Your task to perform on an android device: manage bookmarks in the chrome app Image 0: 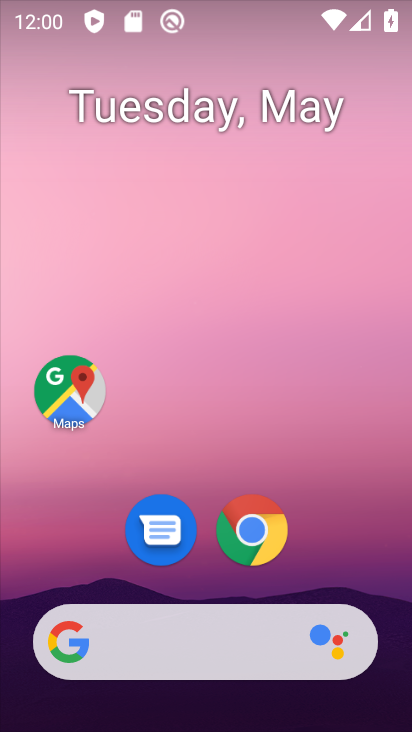
Step 0: drag from (346, 501) to (338, 25)
Your task to perform on an android device: manage bookmarks in the chrome app Image 1: 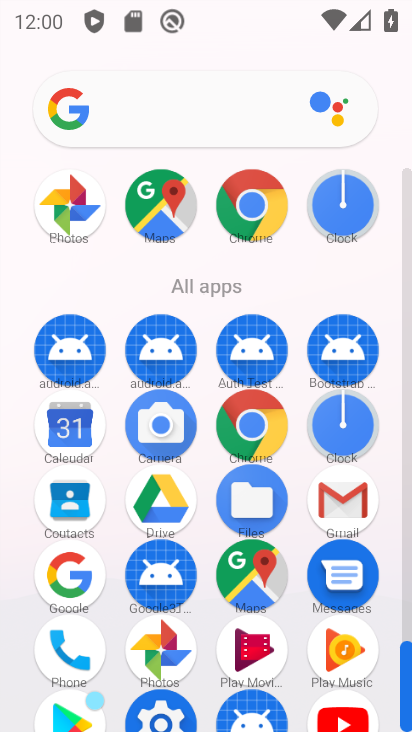
Step 1: drag from (3, 607) to (24, 220)
Your task to perform on an android device: manage bookmarks in the chrome app Image 2: 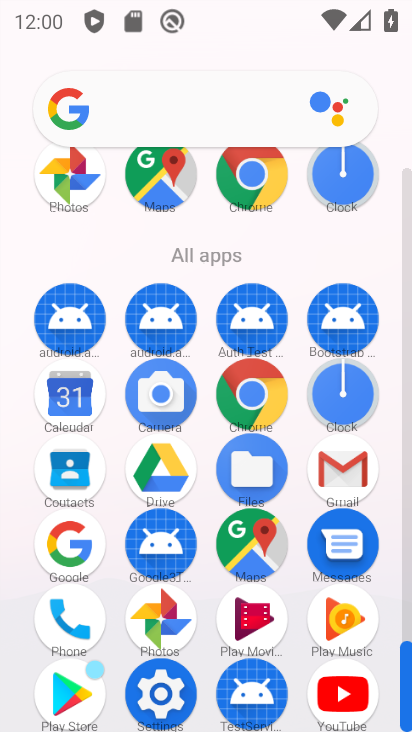
Step 2: click (252, 175)
Your task to perform on an android device: manage bookmarks in the chrome app Image 3: 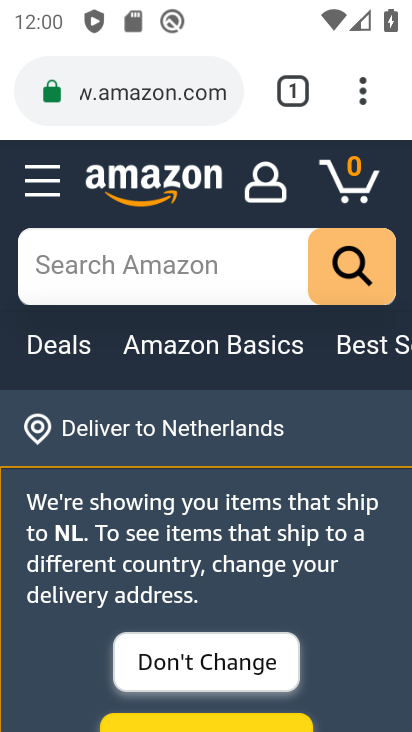
Step 3: task complete